Your task to perform on an android device: open a bookmark in the chrome app Image 0: 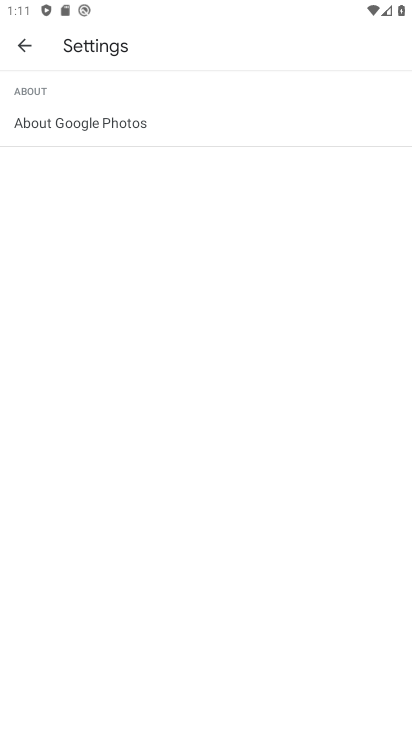
Step 0: press home button
Your task to perform on an android device: open a bookmark in the chrome app Image 1: 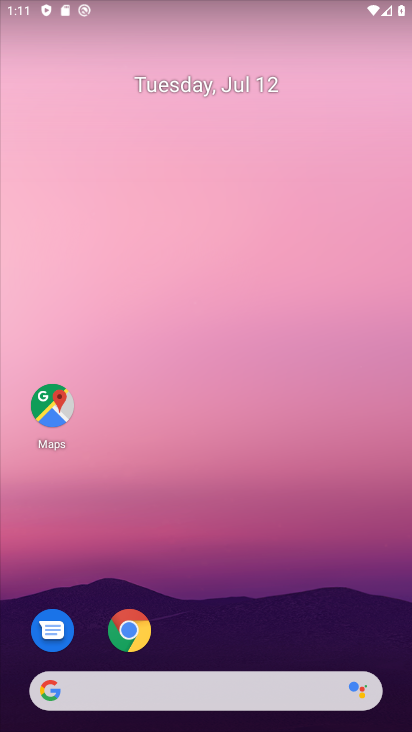
Step 1: drag from (235, 676) to (132, 28)
Your task to perform on an android device: open a bookmark in the chrome app Image 2: 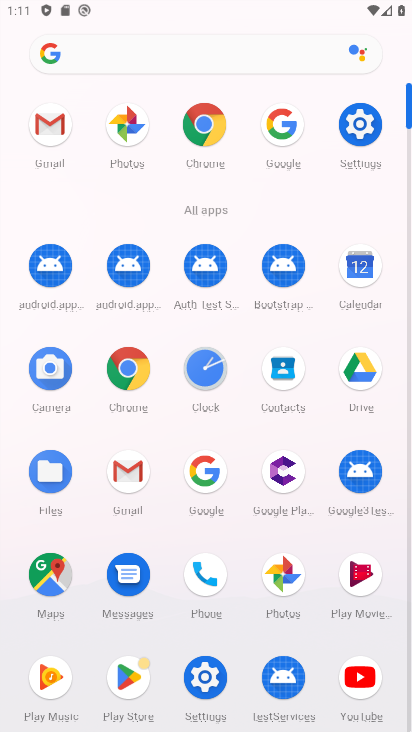
Step 2: click (192, 124)
Your task to perform on an android device: open a bookmark in the chrome app Image 3: 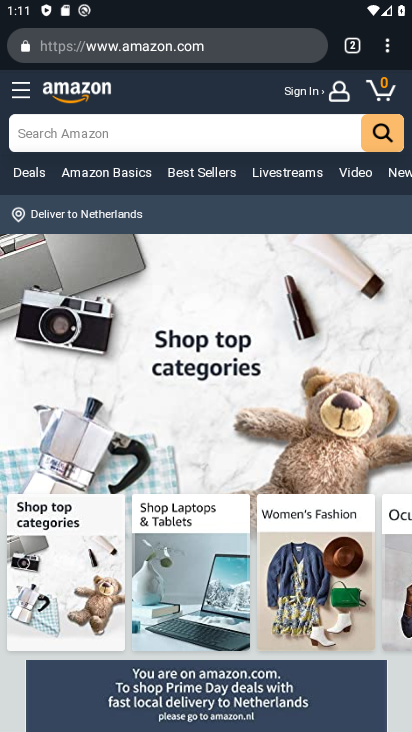
Step 3: task complete